Your task to perform on an android device: toggle javascript in the chrome app Image 0: 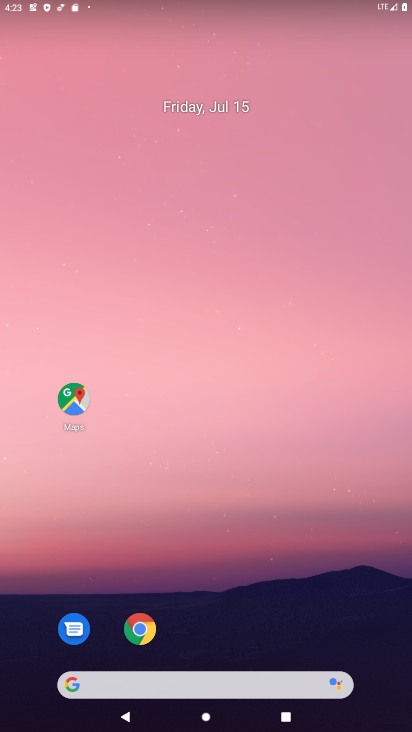
Step 0: click (140, 642)
Your task to perform on an android device: toggle javascript in the chrome app Image 1: 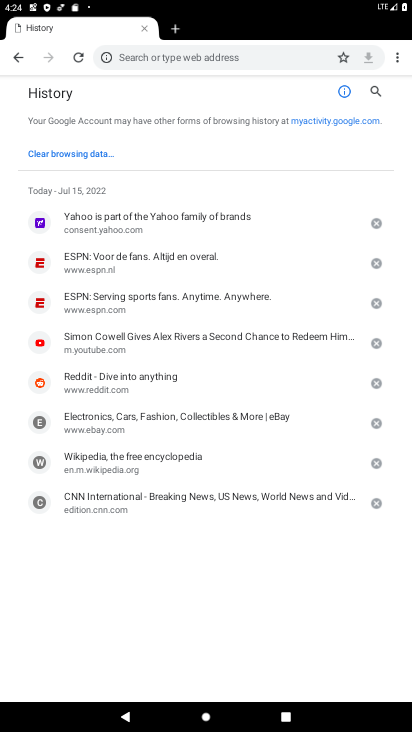
Step 1: click (395, 61)
Your task to perform on an android device: toggle javascript in the chrome app Image 2: 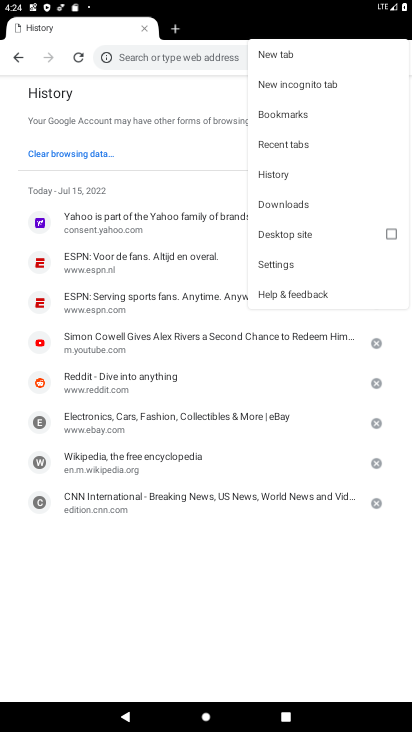
Step 2: click (290, 256)
Your task to perform on an android device: toggle javascript in the chrome app Image 3: 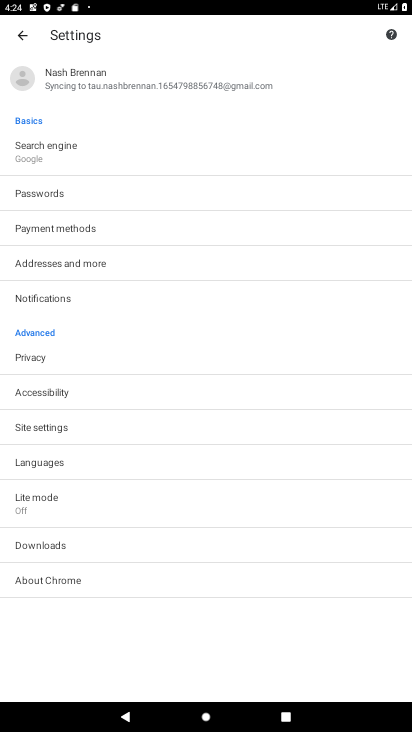
Step 3: click (51, 424)
Your task to perform on an android device: toggle javascript in the chrome app Image 4: 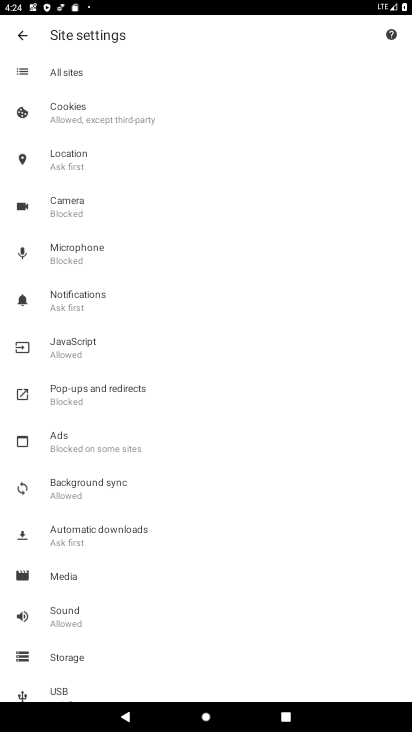
Step 4: click (74, 358)
Your task to perform on an android device: toggle javascript in the chrome app Image 5: 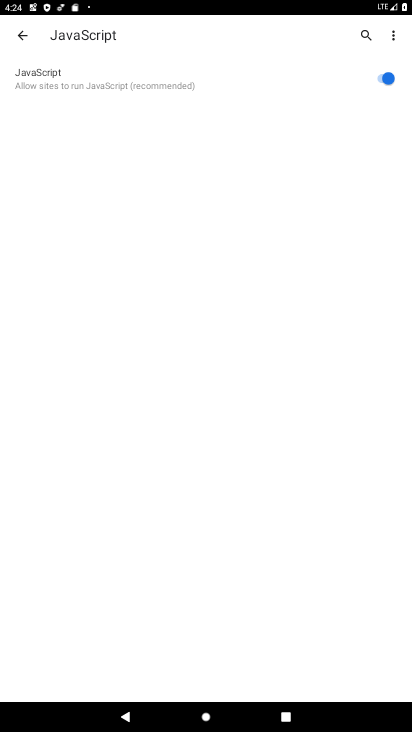
Step 5: click (380, 76)
Your task to perform on an android device: toggle javascript in the chrome app Image 6: 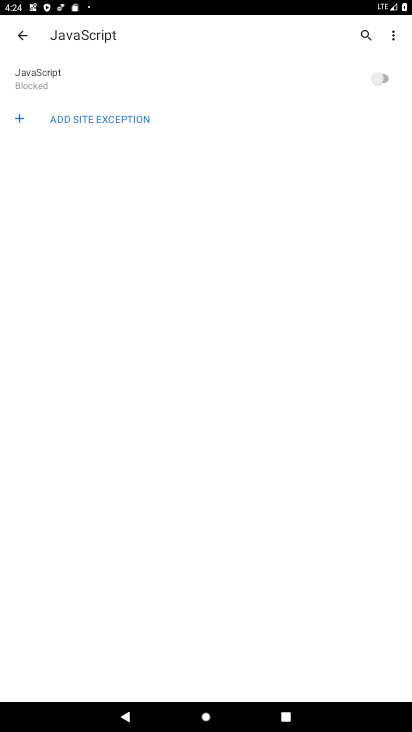
Step 6: task complete